Your task to perform on an android device: When is my next appointment? Image 0: 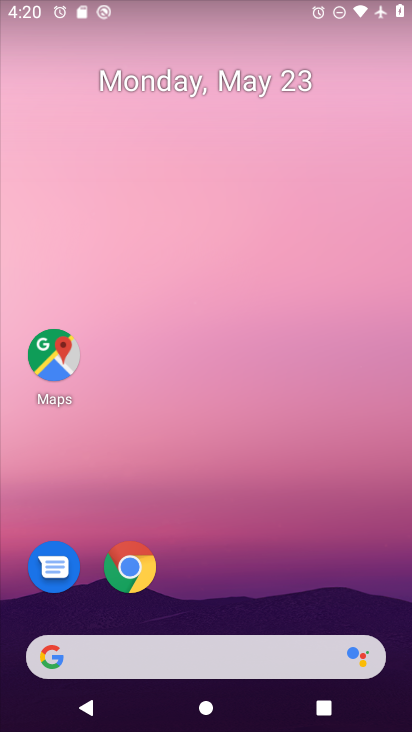
Step 0: drag from (375, 592) to (310, 2)
Your task to perform on an android device: When is my next appointment? Image 1: 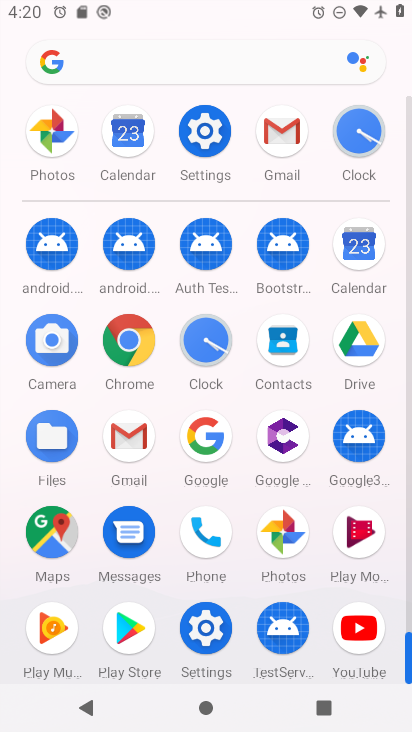
Step 1: click (361, 250)
Your task to perform on an android device: When is my next appointment? Image 2: 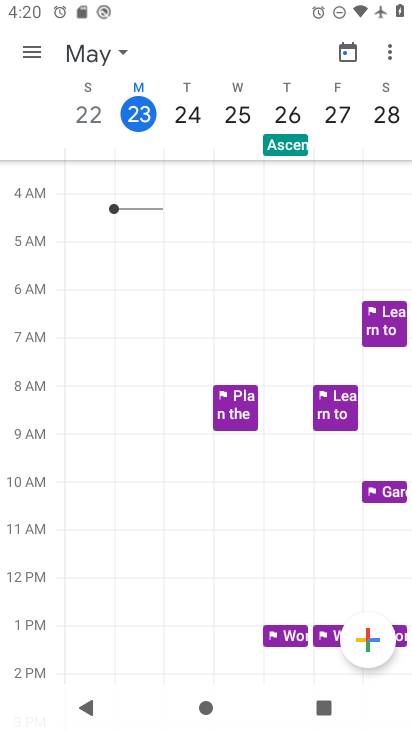
Step 2: click (35, 47)
Your task to perform on an android device: When is my next appointment? Image 3: 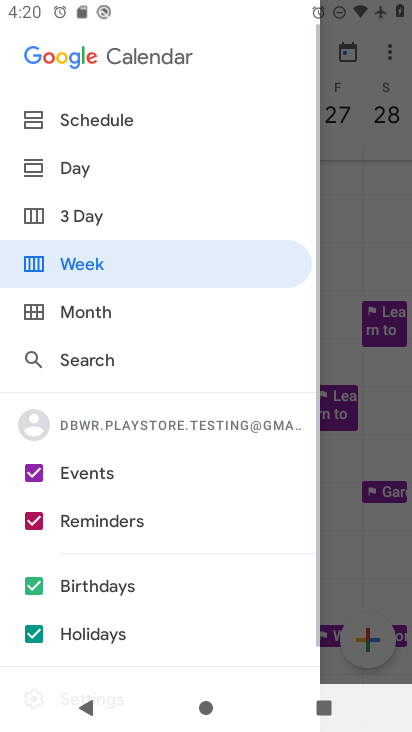
Step 3: click (90, 120)
Your task to perform on an android device: When is my next appointment? Image 4: 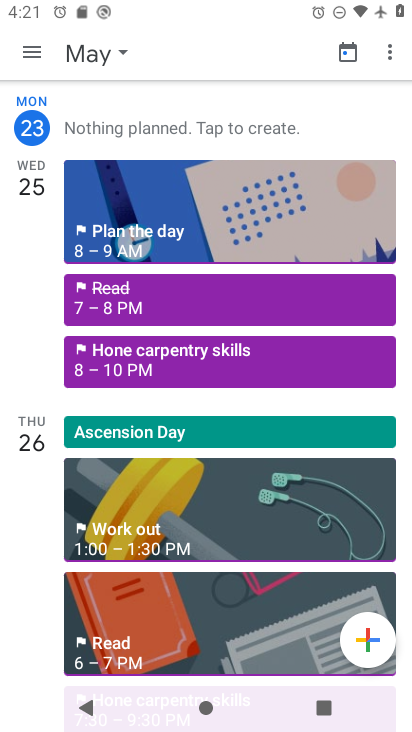
Step 4: task complete